Your task to perform on an android device: Open calendar and show me the first week of next month Image 0: 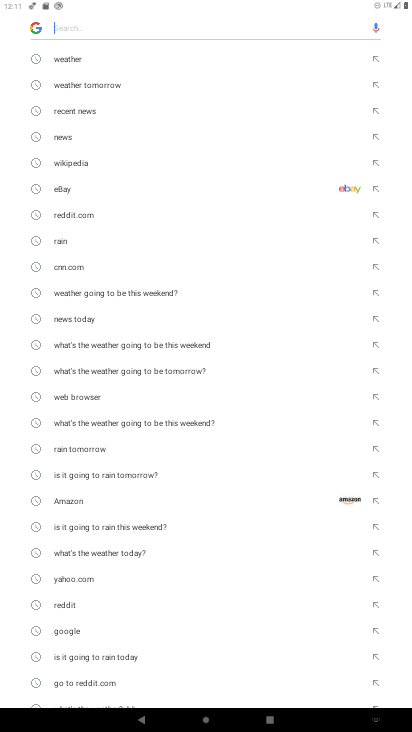
Step 0: press home button
Your task to perform on an android device: Open calendar and show me the first week of next month Image 1: 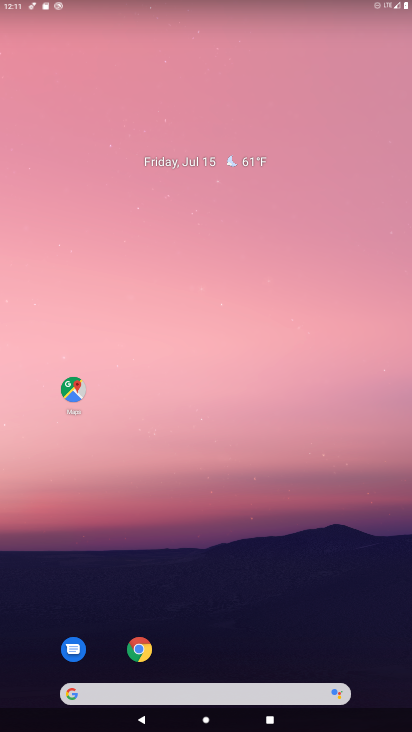
Step 1: drag from (207, 660) to (220, 17)
Your task to perform on an android device: Open calendar and show me the first week of next month Image 2: 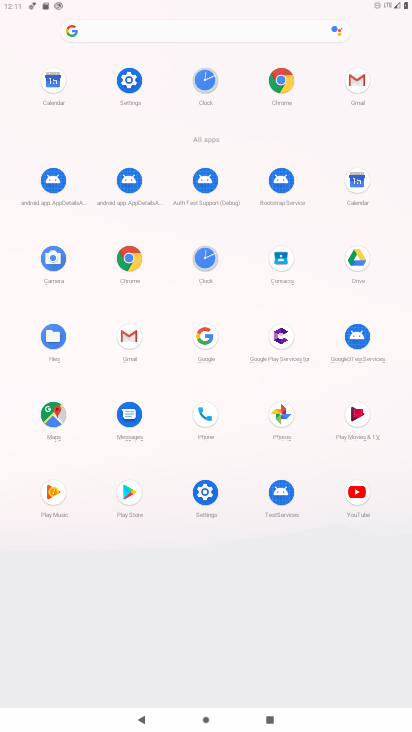
Step 2: click (348, 188)
Your task to perform on an android device: Open calendar and show me the first week of next month Image 3: 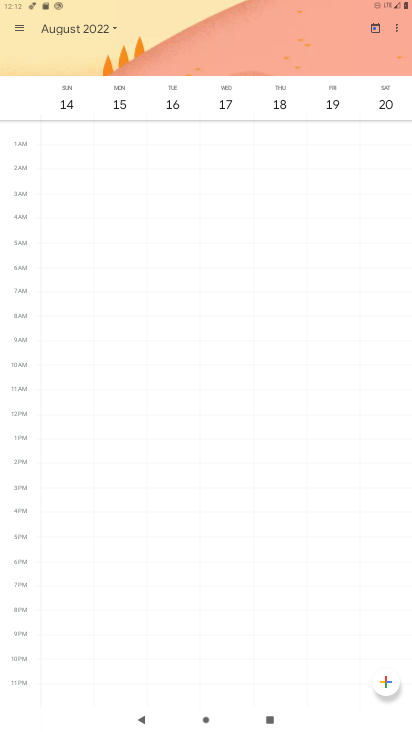
Step 3: task complete